Your task to perform on an android device: Find coffee shops on Maps Image 0: 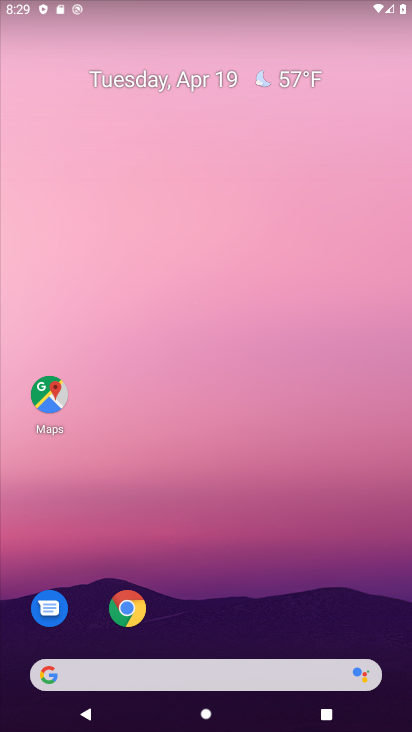
Step 0: click (47, 398)
Your task to perform on an android device: Find coffee shops on Maps Image 1: 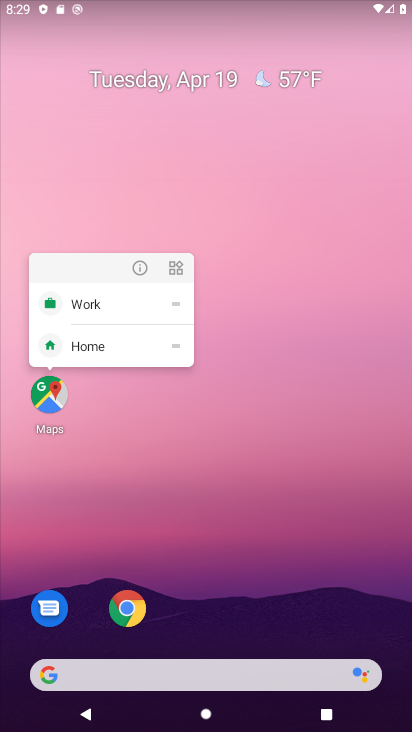
Step 1: click (47, 398)
Your task to perform on an android device: Find coffee shops on Maps Image 2: 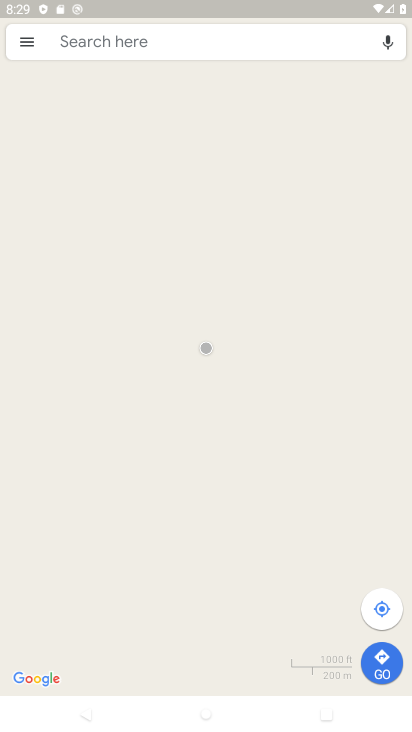
Step 2: click (187, 45)
Your task to perform on an android device: Find coffee shops on Maps Image 3: 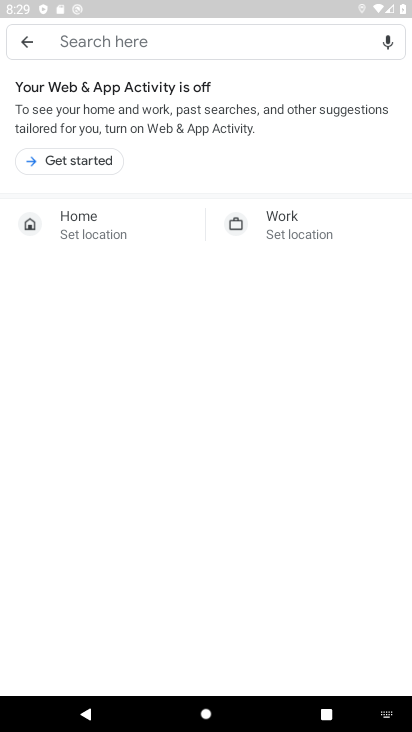
Step 3: click (28, 45)
Your task to perform on an android device: Find coffee shops on Maps Image 4: 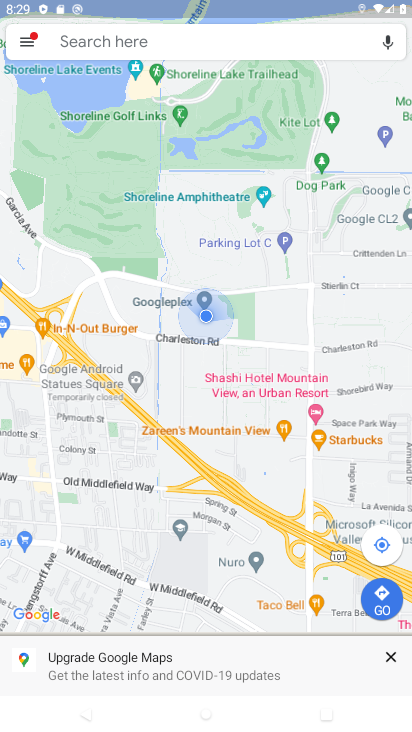
Step 4: click (134, 39)
Your task to perform on an android device: Find coffee shops on Maps Image 5: 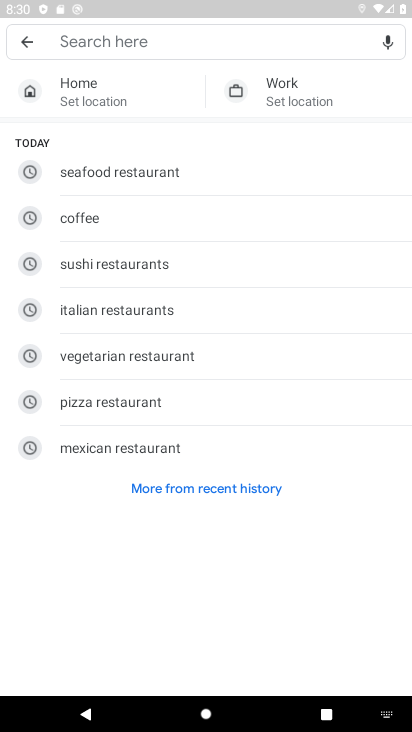
Step 5: type "coffee shops"
Your task to perform on an android device: Find coffee shops on Maps Image 6: 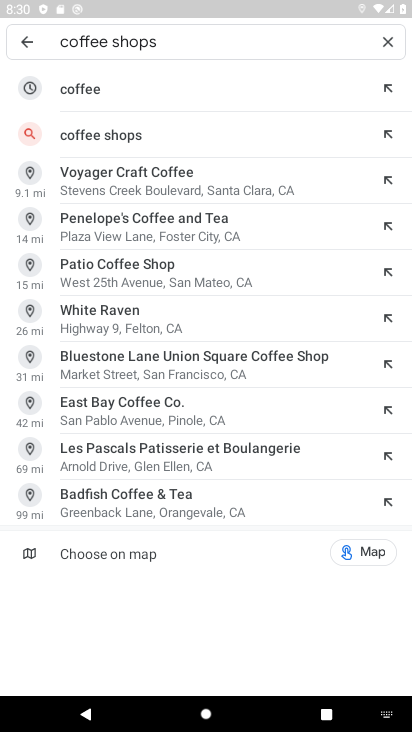
Step 6: click (162, 135)
Your task to perform on an android device: Find coffee shops on Maps Image 7: 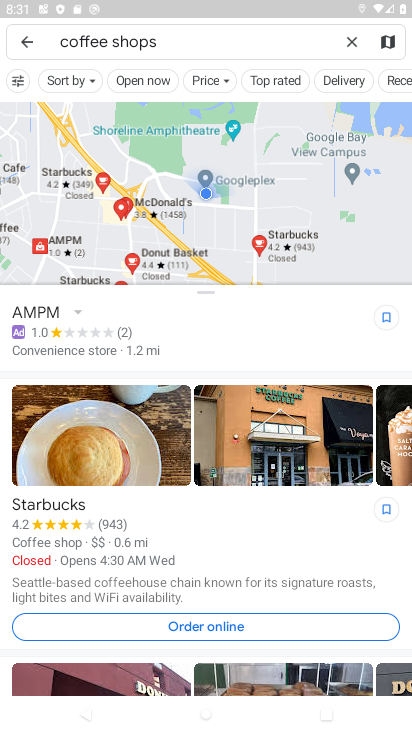
Step 7: task complete